Your task to perform on an android device: Do I have any events today? Image 0: 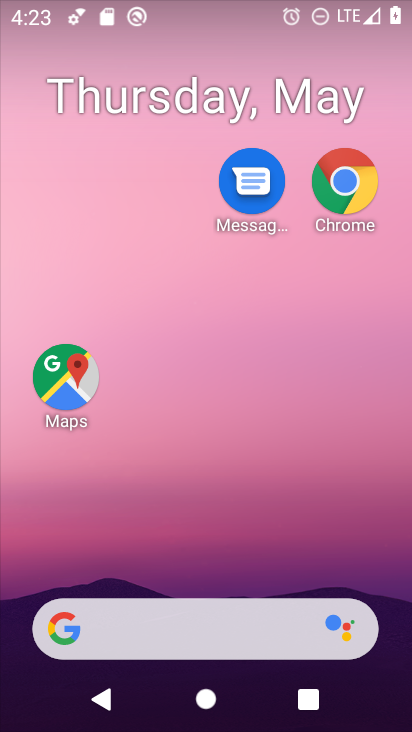
Step 0: drag from (99, 586) to (230, 19)
Your task to perform on an android device: Do I have any events today? Image 1: 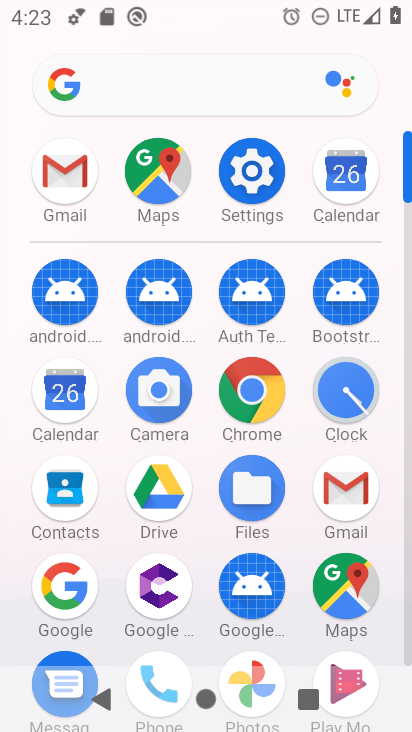
Step 1: click (58, 392)
Your task to perform on an android device: Do I have any events today? Image 2: 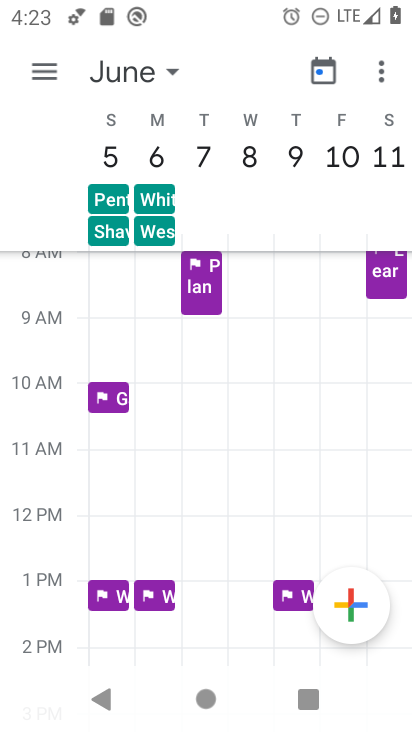
Step 2: click (168, 65)
Your task to perform on an android device: Do I have any events today? Image 3: 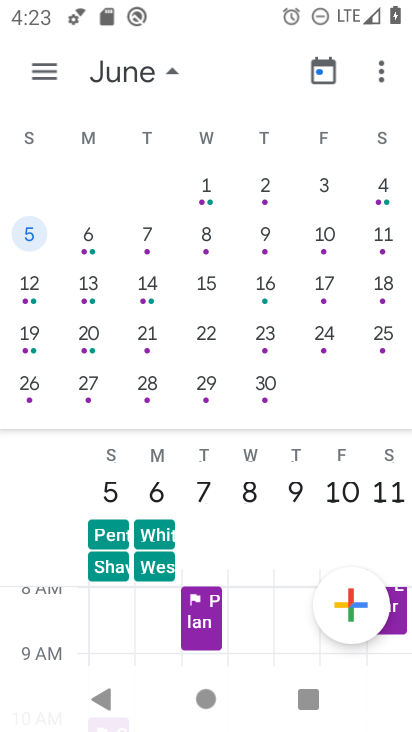
Step 3: drag from (80, 313) to (390, 328)
Your task to perform on an android device: Do I have any events today? Image 4: 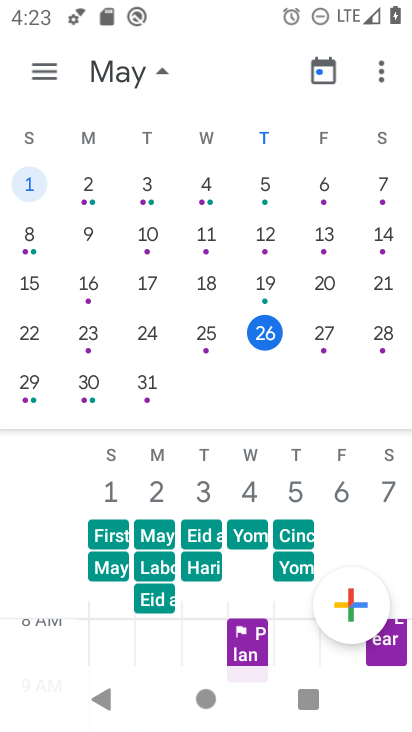
Step 4: click (256, 333)
Your task to perform on an android device: Do I have any events today? Image 5: 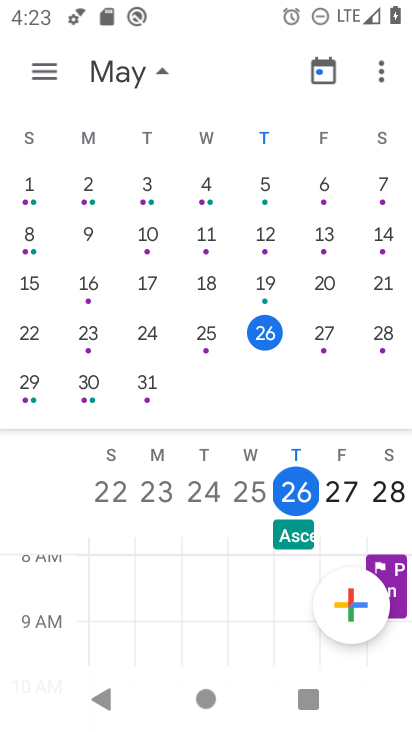
Step 5: task complete